Your task to perform on an android device: Show me popular games on the Play Store Image 0: 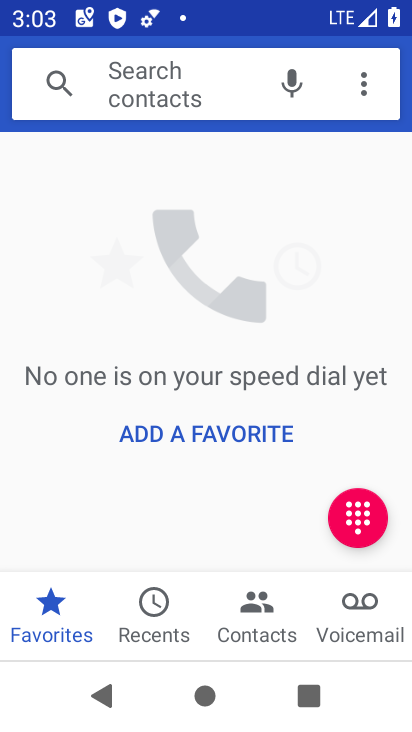
Step 0: press home button
Your task to perform on an android device: Show me popular games on the Play Store Image 1: 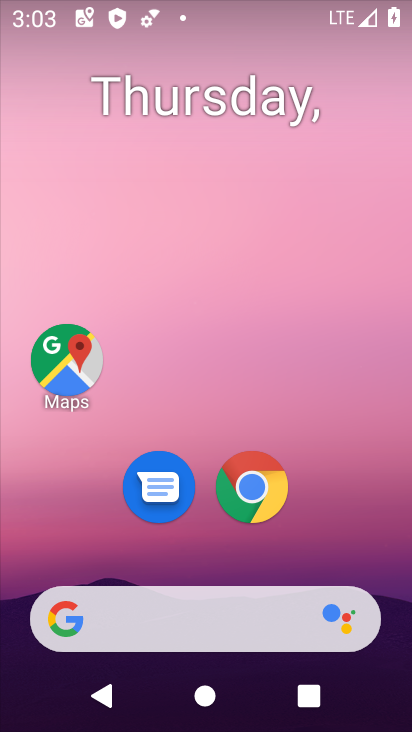
Step 1: drag from (347, 510) to (335, 123)
Your task to perform on an android device: Show me popular games on the Play Store Image 2: 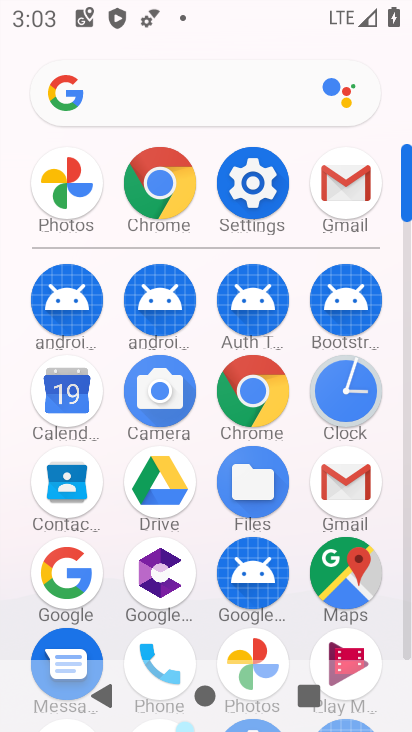
Step 2: drag from (358, 497) to (411, 202)
Your task to perform on an android device: Show me popular games on the Play Store Image 3: 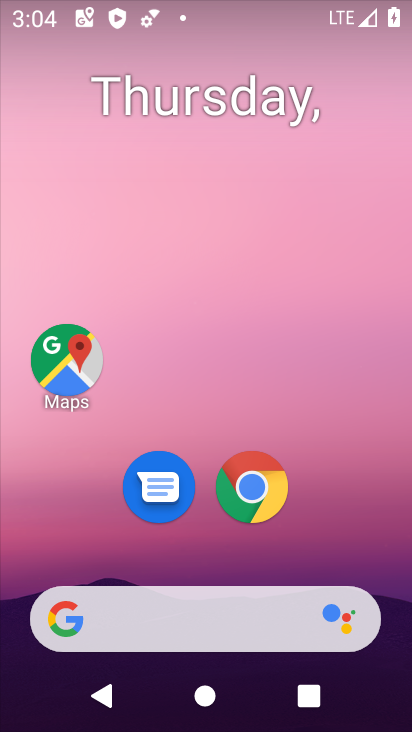
Step 3: drag from (362, 478) to (393, 64)
Your task to perform on an android device: Show me popular games on the Play Store Image 4: 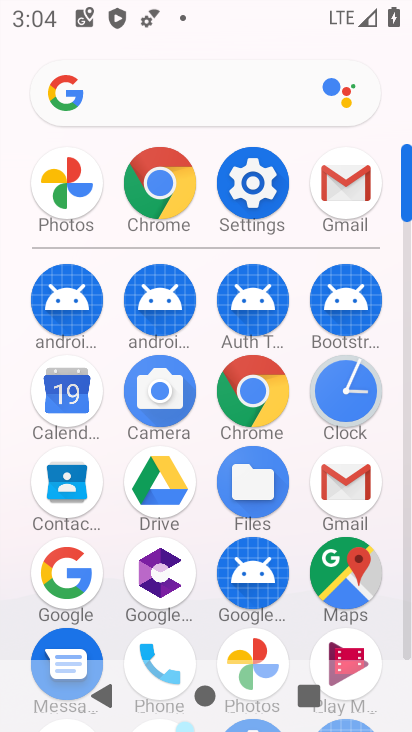
Step 4: drag from (399, 592) to (387, 313)
Your task to perform on an android device: Show me popular games on the Play Store Image 5: 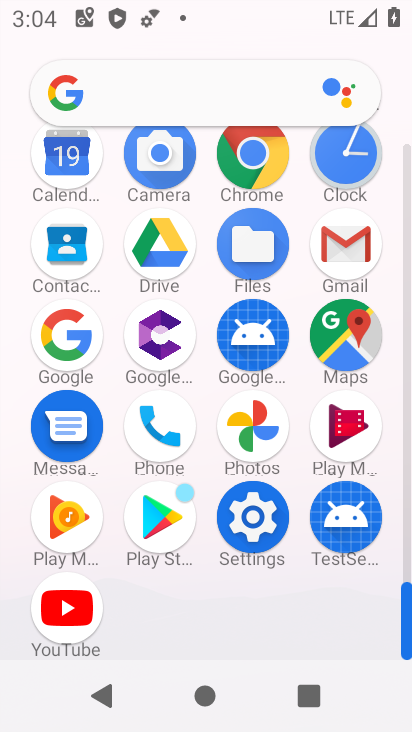
Step 5: click (134, 526)
Your task to perform on an android device: Show me popular games on the Play Store Image 6: 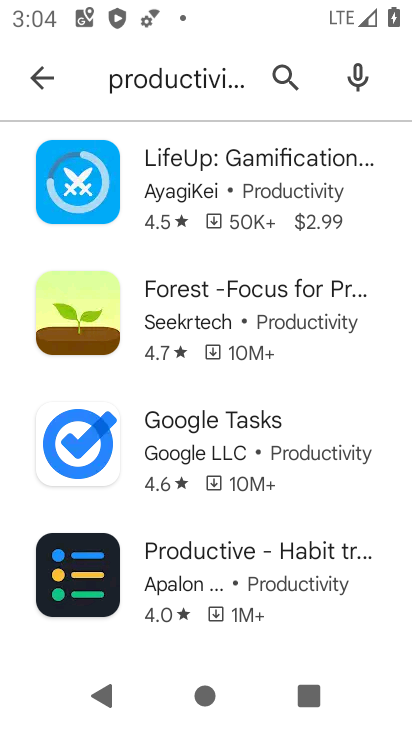
Step 6: click (272, 84)
Your task to perform on an android device: Show me popular games on the Play Store Image 7: 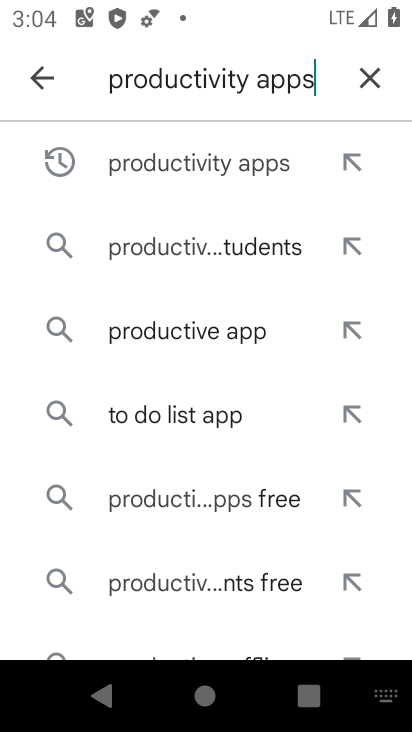
Step 7: click (377, 85)
Your task to perform on an android device: Show me popular games on the Play Store Image 8: 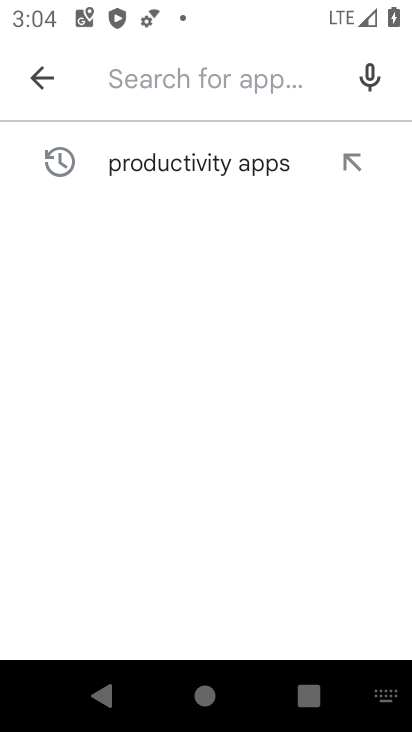
Step 8: type "popular games"
Your task to perform on an android device: Show me popular games on the Play Store Image 9: 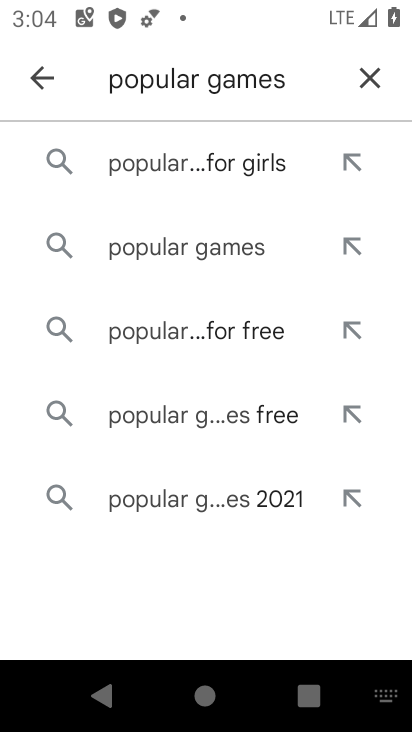
Step 9: click (258, 252)
Your task to perform on an android device: Show me popular games on the Play Store Image 10: 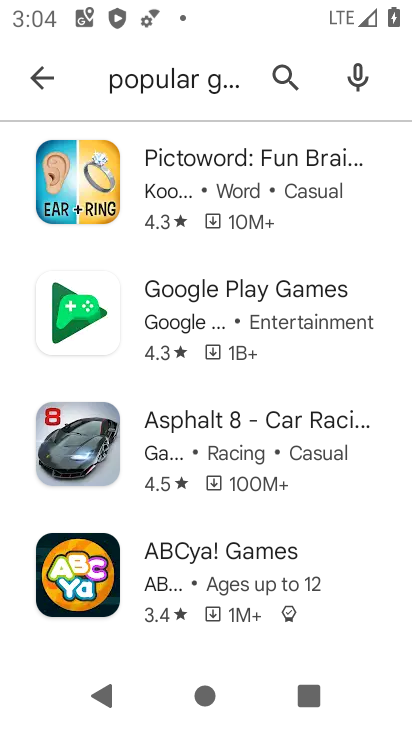
Step 10: task complete